Your task to perform on an android device: set the timer Image 0: 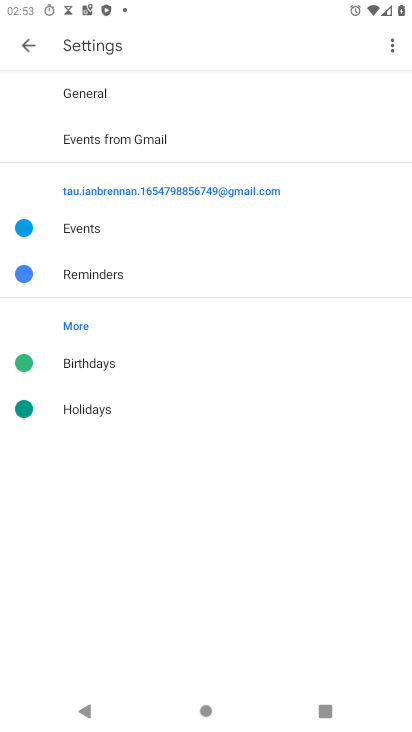
Step 0: press home button
Your task to perform on an android device: set the timer Image 1: 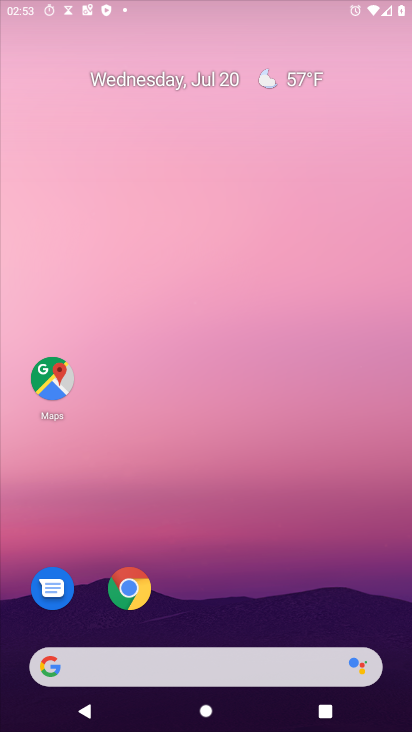
Step 1: drag from (291, 637) to (315, 36)
Your task to perform on an android device: set the timer Image 2: 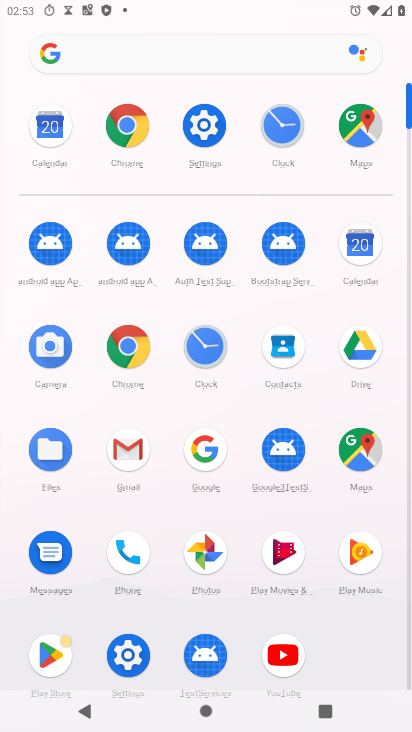
Step 2: click (208, 357)
Your task to perform on an android device: set the timer Image 3: 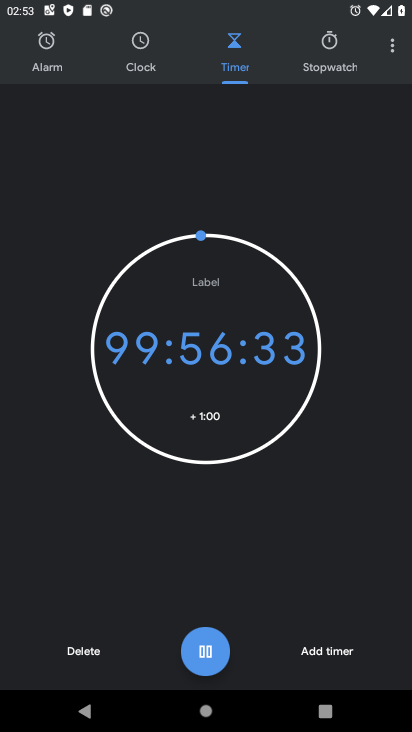
Step 3: task complete